Your task to perform on an android device: check the backup settings in the google photos Image 0: 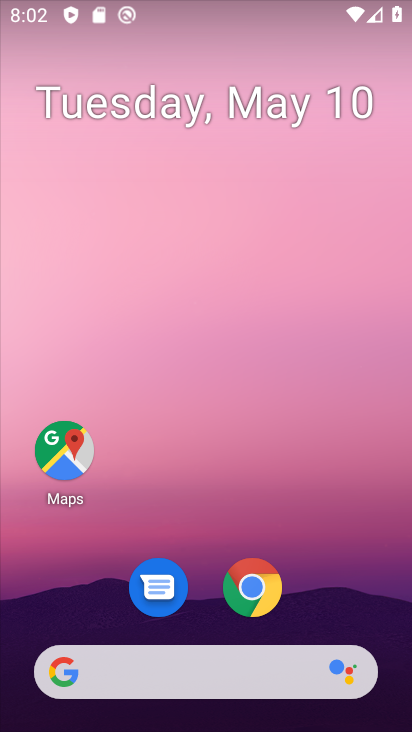
Step 0: drag from (348, 513) to (402, 25)
Your task to perform on an android device: check the backup settings in the google photos Image 1: 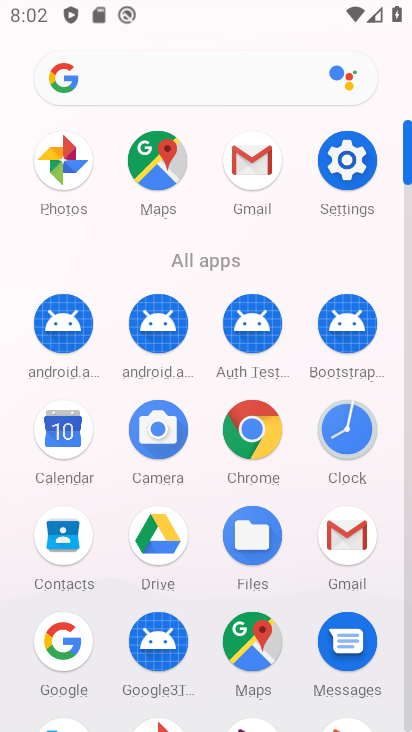
Step 1: click (60, 165)
Your task to perform on an android device: check the backup settings in the google photos Image 2: 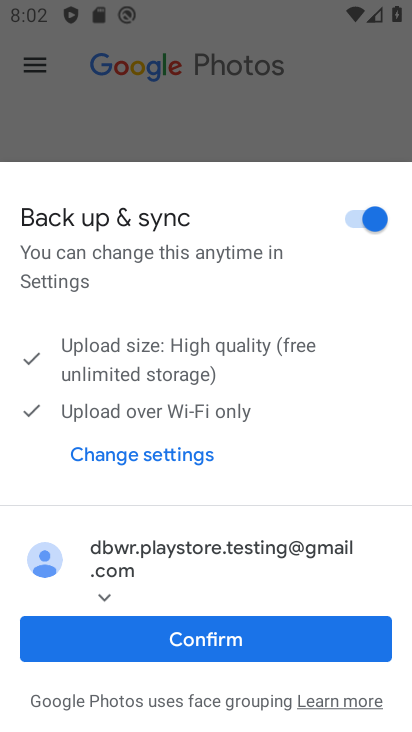
Step 2: click (205, 644)
Your task to perform on an android device: check the backup settings in the google photos Image 3: 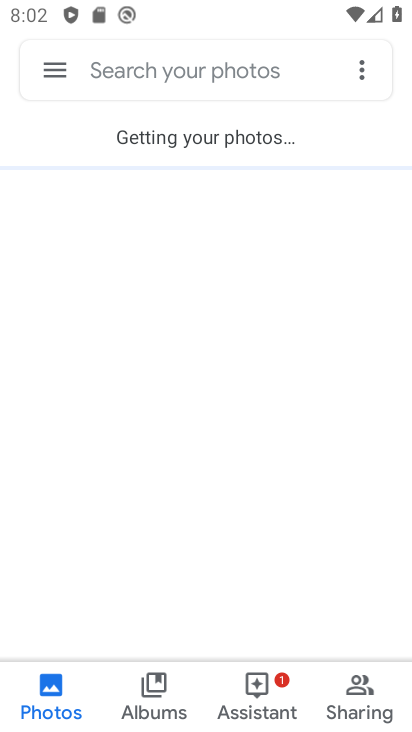
Step 3: click (111, 369)
Your task to perform on an android device: check the backup settings in the google photos Image 4: 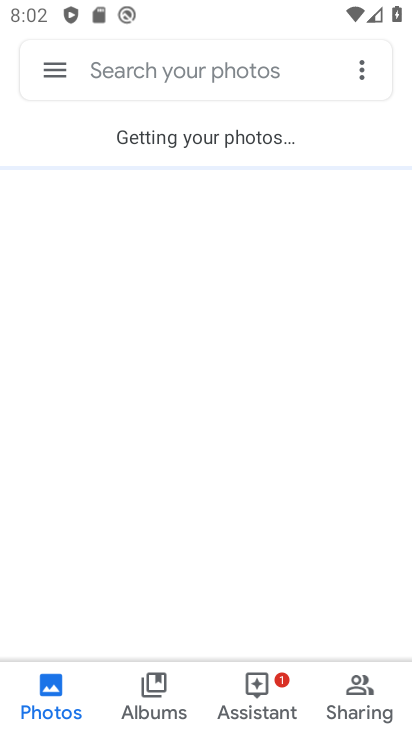
Step 4: click (35, 75)
Your task to perform on an android device: check the backup settings in the google photos Image 5: 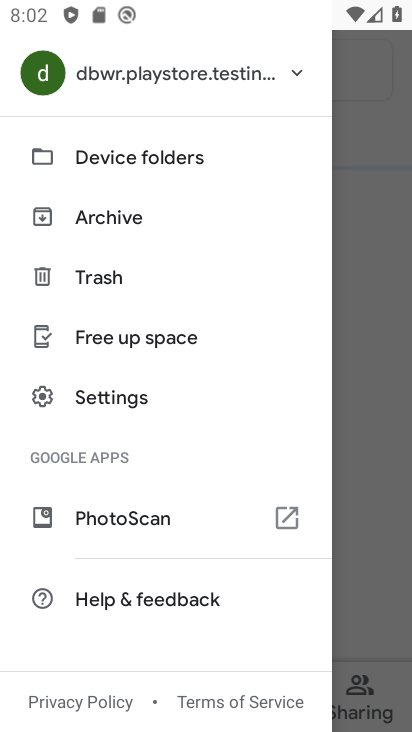
Step 5: click (116, 408)
Your task to perform on an android device: check the backup settings in the google photos Image 6: 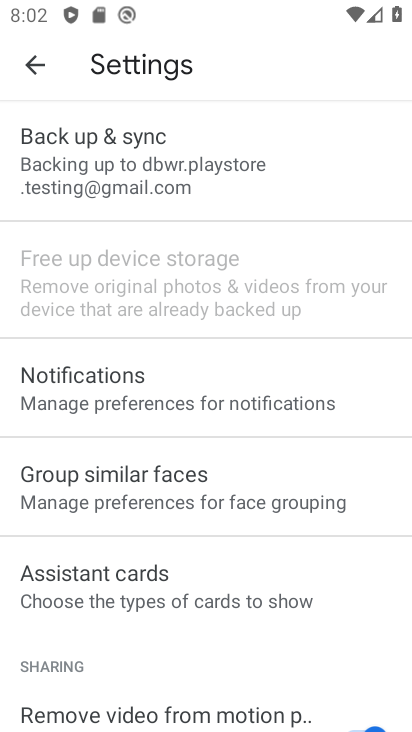
Step 6: click (128, 167)
Your task to perform on an android device: check the backup settings in the google photos Image 7: 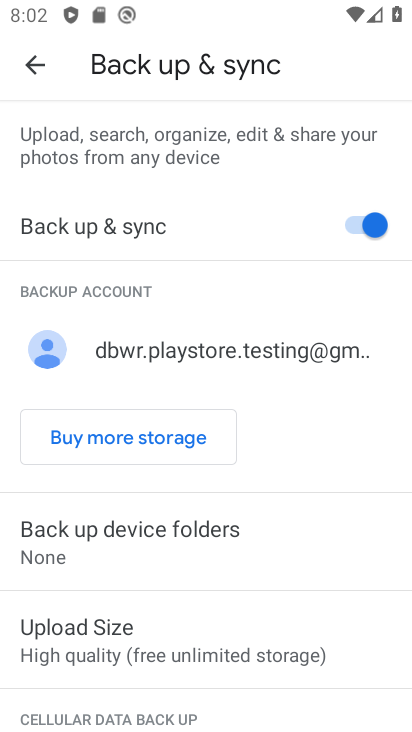
Step 7: task complete